Your task to perform on an android device: turn on sleep mode Image 0: 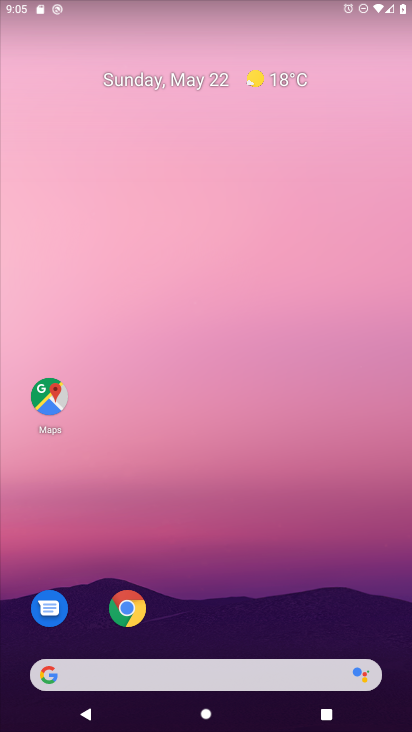
Step 0: drag from (227, 602) to (211, 136)
Your task to perform on an android device: turn on sleep mode Image 1: 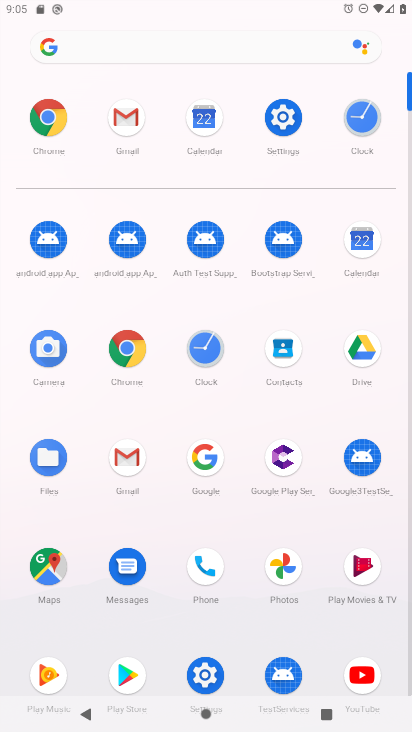
Step 1: click (281, 116)
Your task to perform on an android device: turn on sleep mode Image 2: 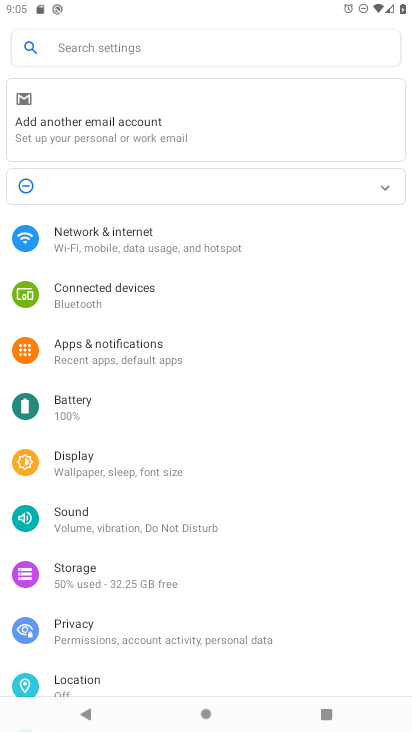
Step 2: click (107, 244)
Your task to perform on an android device: turn on sleep mode Image 3: 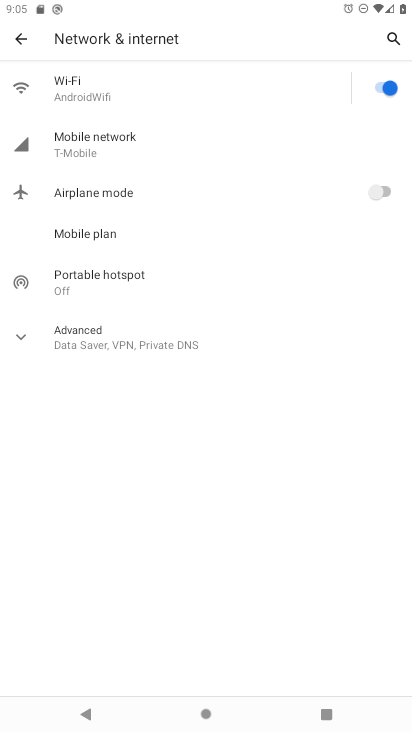
Step 3: click (25, 40)
Your task to perform on an android device: turn on sleep mode Image 4: 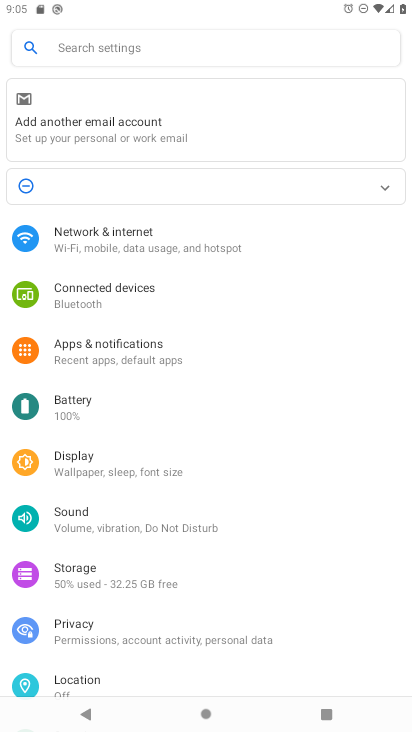
Step 4: drag from (160, 640) to (157, 202)
Your task to perform on an android device: turn on sleep mode Image 5: 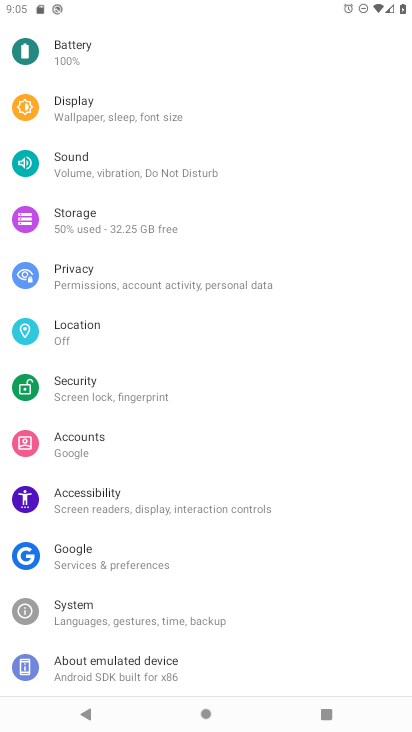
Step 5: drag from (180, 652) to (178, 275)
Your task to perform on an android device: turn on sleep mode Image 6: 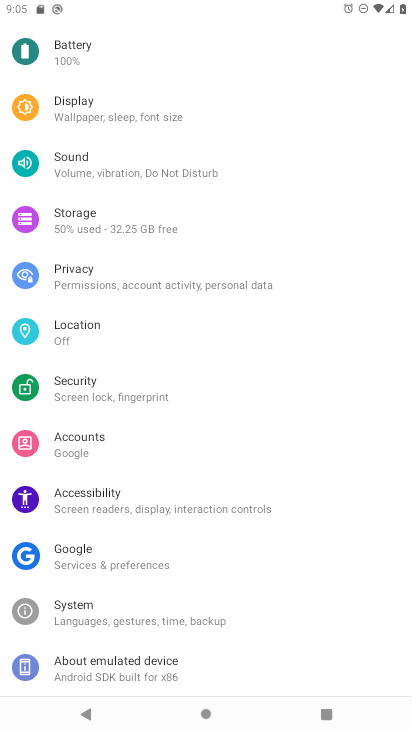
Step 6: click (81, 111)
Your task to perform on an android device: turn on sleep mode Image 7: 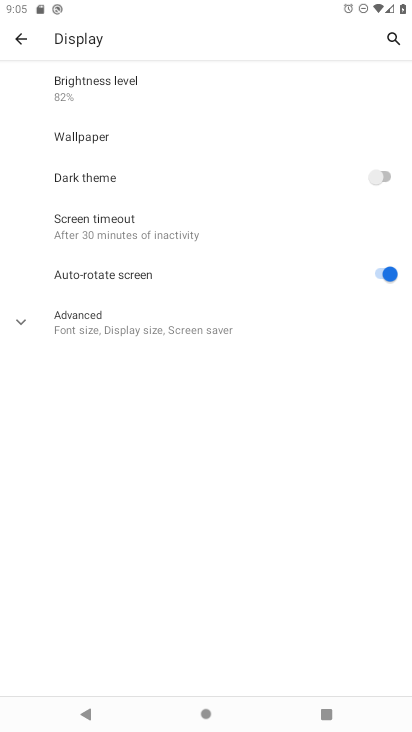
Step 7: click (17, 32)
Your task to perform on an android device: turn on sleep mode Image 8: 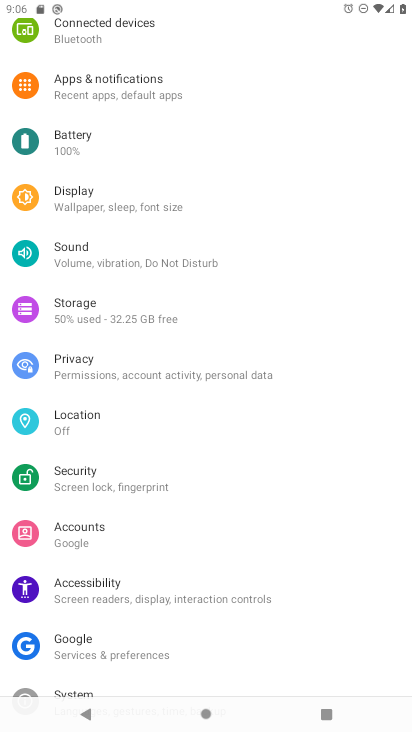
Step 8: task complete